Your task to perform on an android device: Open accessibility settings Image 0: 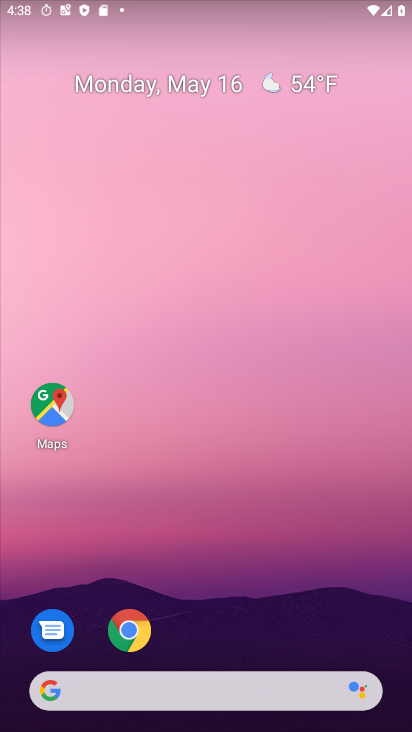
Step 0: drag from (264, 620) to (245, 112)
Your task to perform on an android device: Open accessibility settings Image 1: 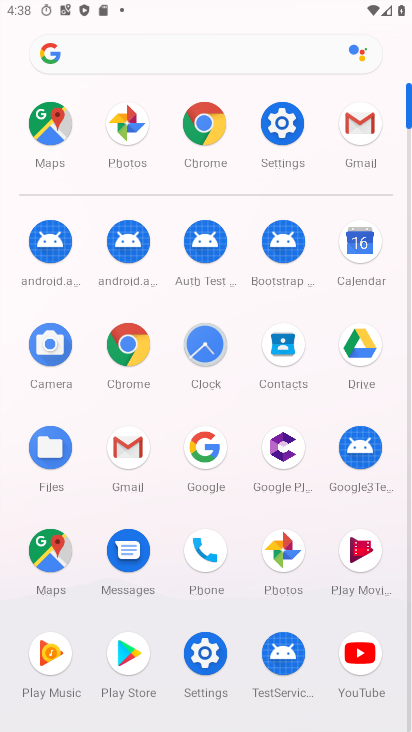
Step 1: click (295, 130)
Your task to perform on an android device: Open accessibility settings Image 2: 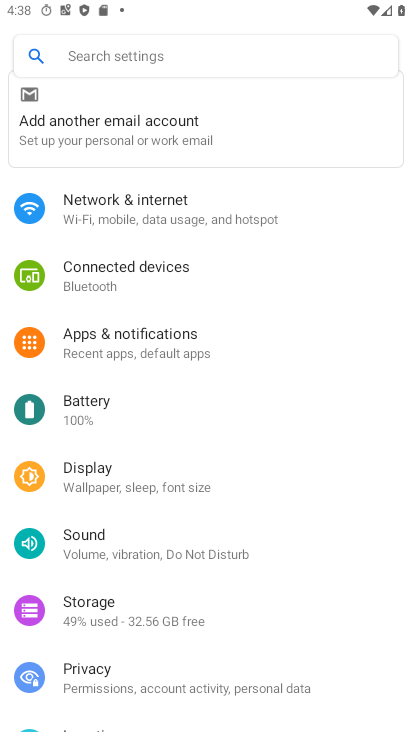
Step 2: drag from (209, 694) to (210, 254)
Your task to perform on an android device: Open accessibility settings Image 3: 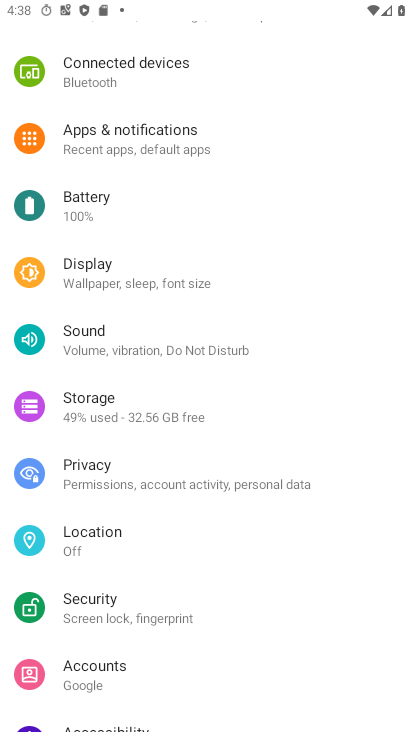
Step 3: drag from (230, 634) to (245, 227)
Your task to perform on an android device: Open accessibility settings Image 4: 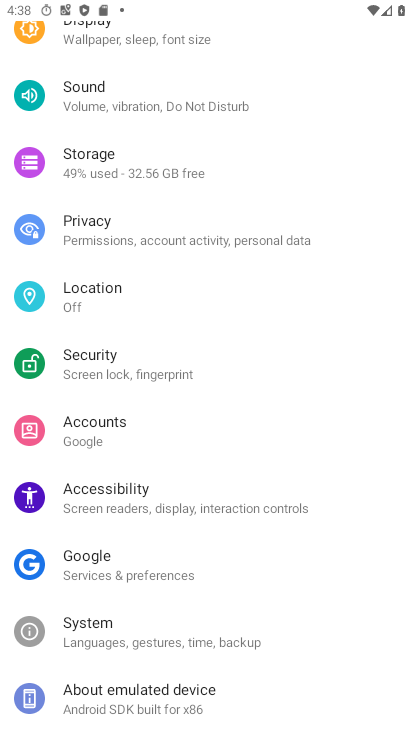
Step 4: click (249, 509)
Your task to perform on an android device: Open accessibility settings Image 5: 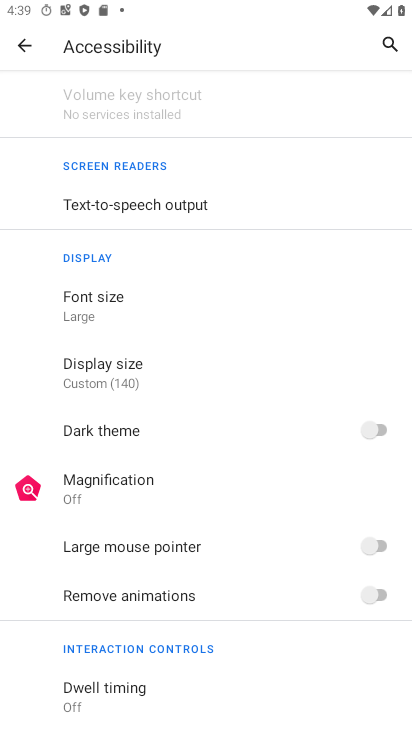
Step 5: task complete